Your task to perform on an android device: toggle sleep mode Image 0: 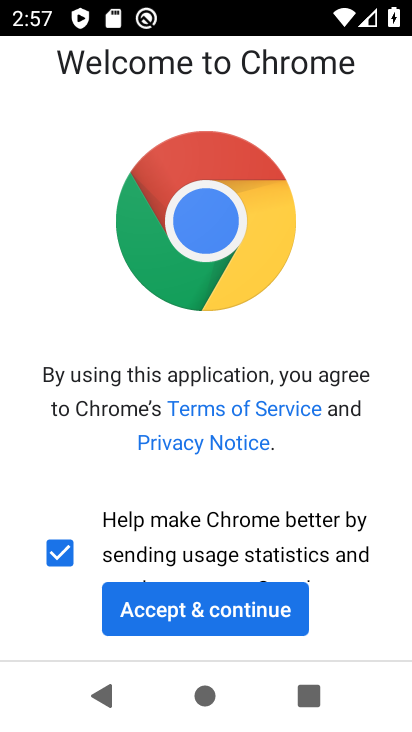
Step 0: press home button
Your task to perform on an android device: toggle sleep mode Image 1: 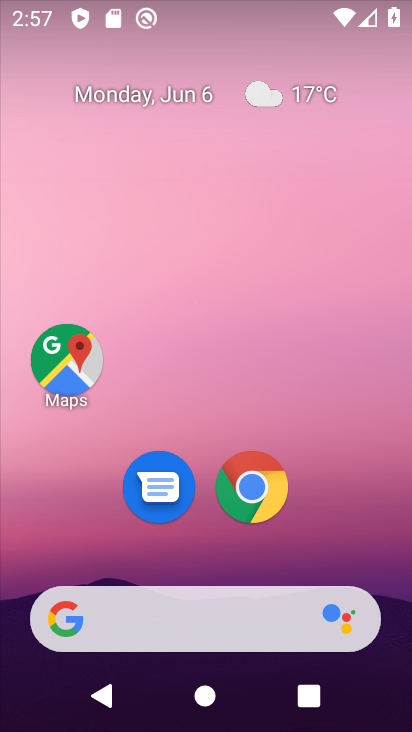
Step 1: drag from (101, 588) to (226, 41)
Your task to perform on an android device: toggle sleep mode Image 2: 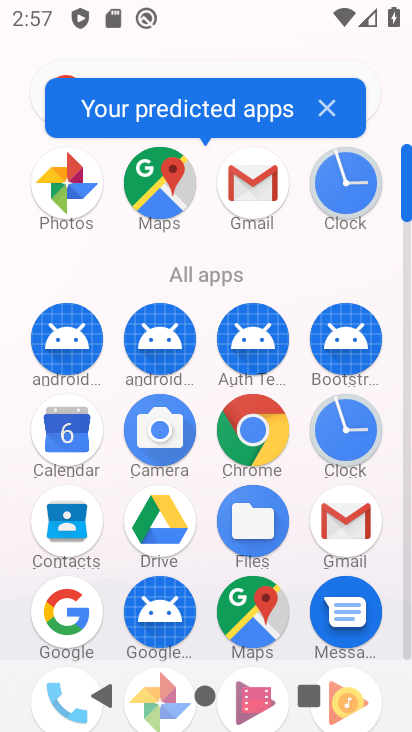
Step 2: drag from (163, 487) to (245, 224)
Your task to perform on an android device: toggle sleep mode Image 3: 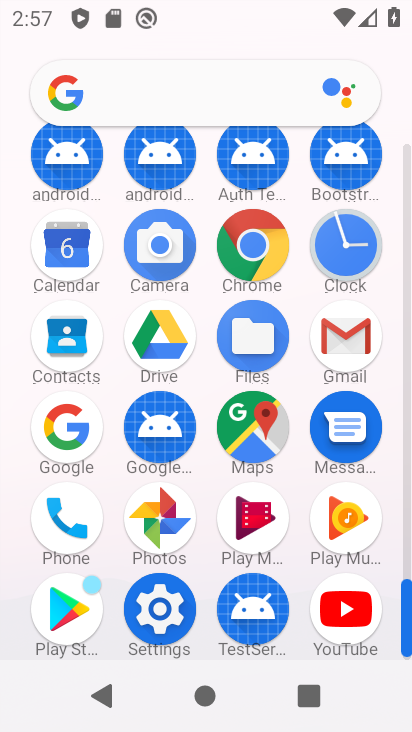
Step 3: click (137, 599)
Your task to perform on an android device: toggle sleep mode Image 4: 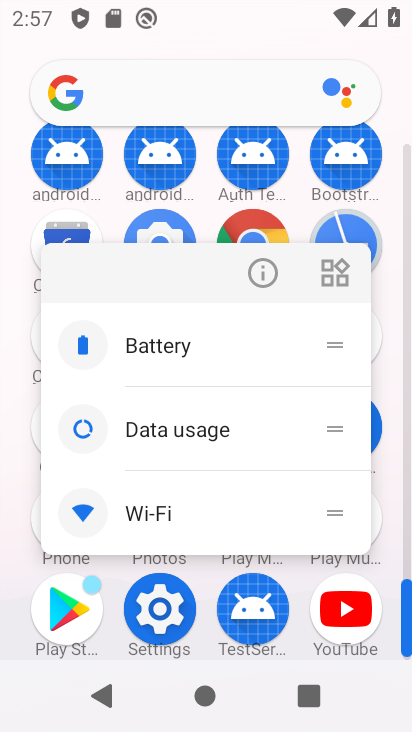
Step 4: click (170, 624)
Your task to perform on an android device: toggle sleep mode Image 5: 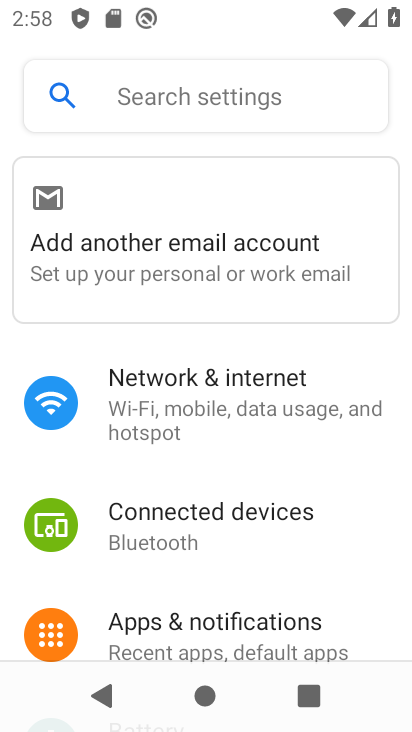
Step 5: drag from (168, 648) to (315, 179)
Your task to perform on an android device: toggle sleep mode Image 6: 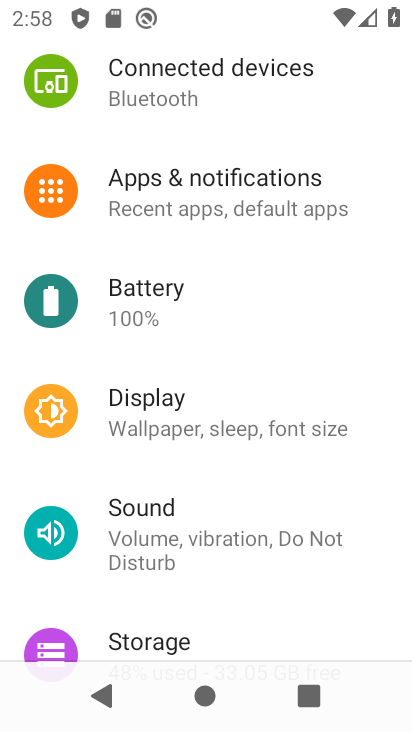
Step 6: click (185, 442)
Your task to perform on an android device: toggle sleep mode Image 7: 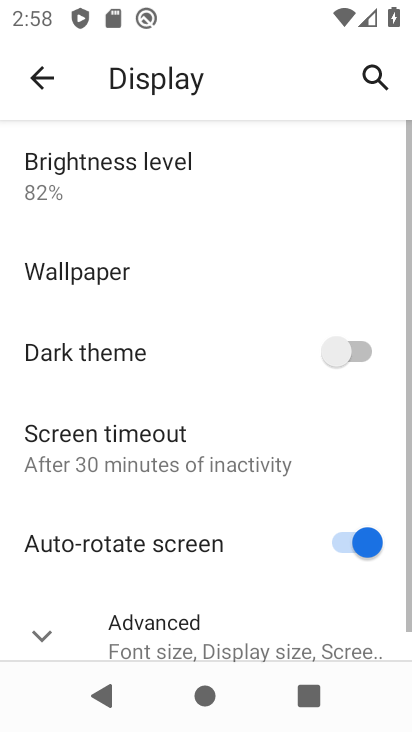
Step 7: drag from (188, 590) to (267, 150)
Your task to perform on an android device: toggle sleep mode Image 8: 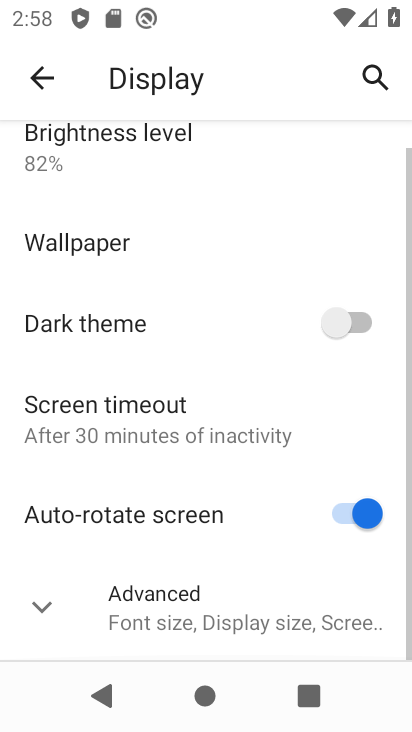
Step 8: click (190, 635)
Your task to perform on an android device: toggle sleep mode Image 9: 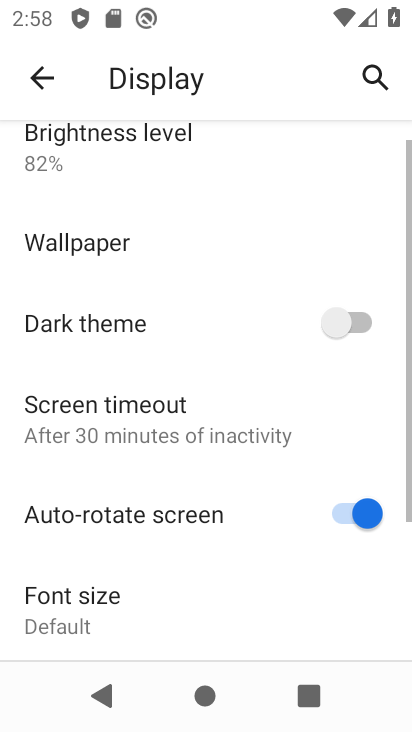
Step 9: task complete